Your task to perform on an android device: Open accessibility settings Image 0: 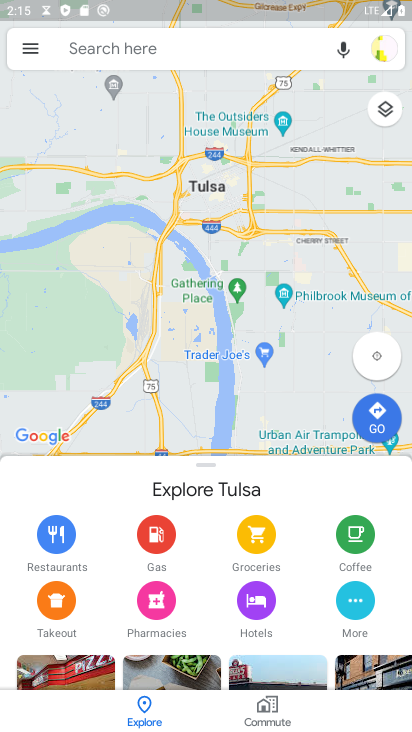
Step 0: press home button
Your task to perform on an android device: Open accessibility settings Image 1: 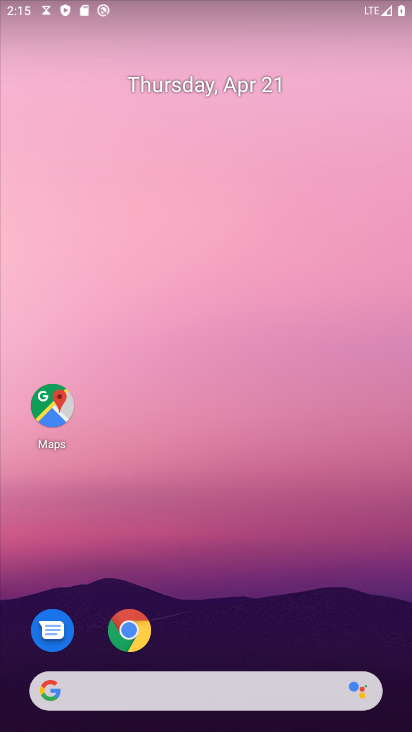
Step 1: drag from (300, 621) to (301, 6)
Your task to perform on an android device: Open accessibility settings Image 2: 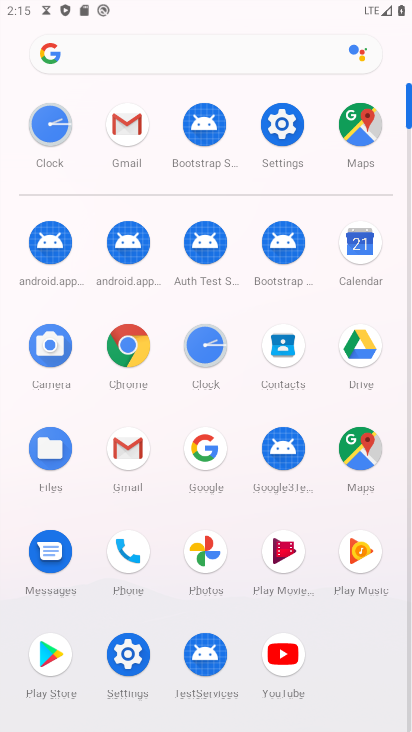
Step 2: click (284, 137)
Your task to perform on an android device: Open accessibility settings Image 3: 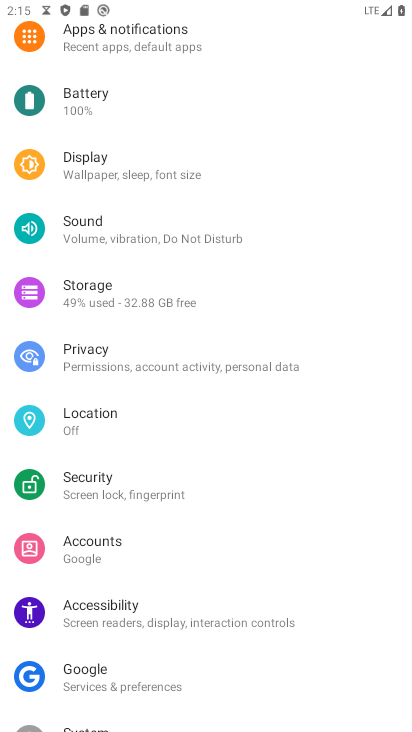
Step 3: click (87, 618)
Your task to perform on an android device: Open accessibility settings Image 4: 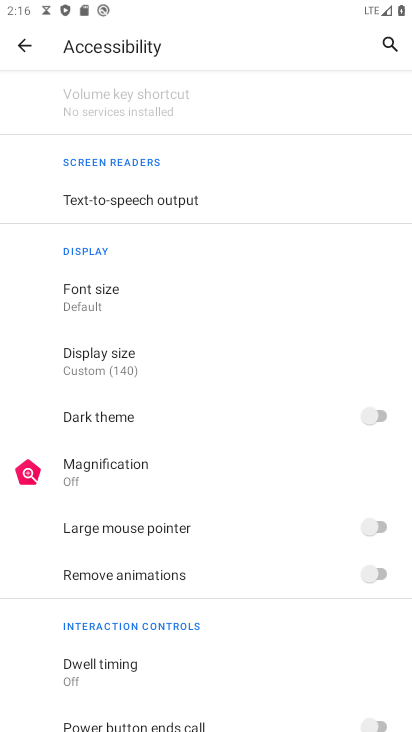
Step 4: task complete